Your task to perform on an android device: Turn on the flashlight Image 0: 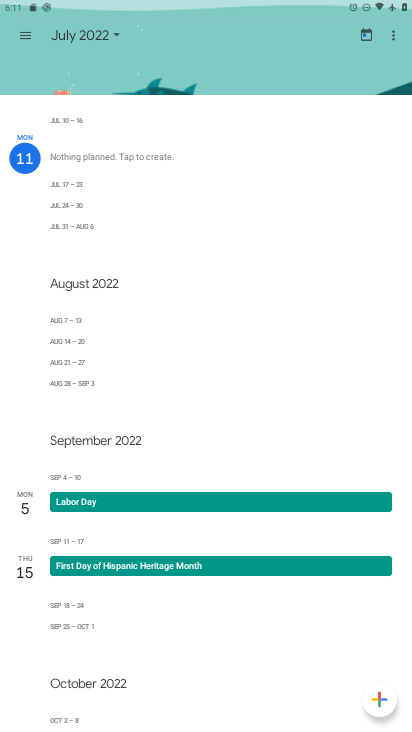
Step 0: press home button
Your task to perform on an android device: Turn on the flashlight Image 1: 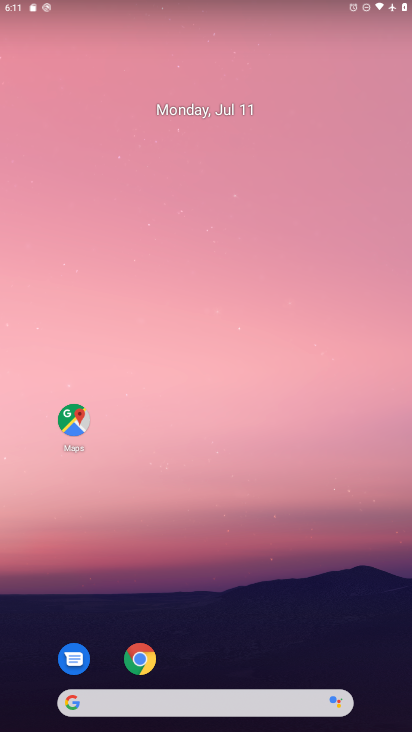
Step 1: drag from (216, 13) to (229, 375)
Your task to perform on an android device: Turn on the flashlight Image 2: 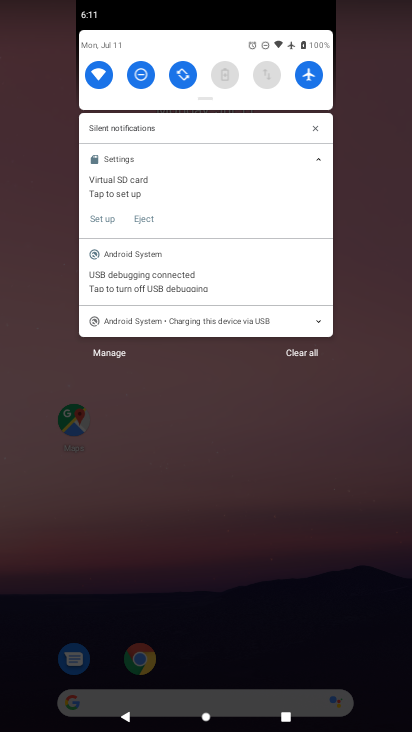
Step 2: drag from (204, 107) to (213, 455)
Your task to perform on an android device: Turn on the flashlight Image 3: 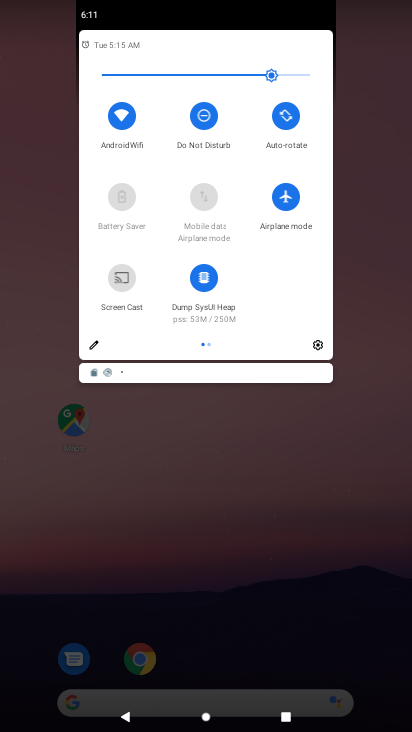
Step 3: click (92, 341)
Your task to perform on an android device: Turn on the flashlight Image 4: 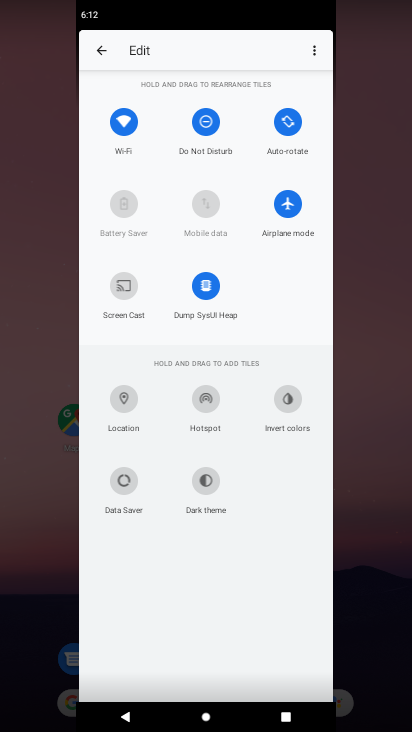
Step 4: task complete